Your task to perform on an android device: Go to Maps Image 0: 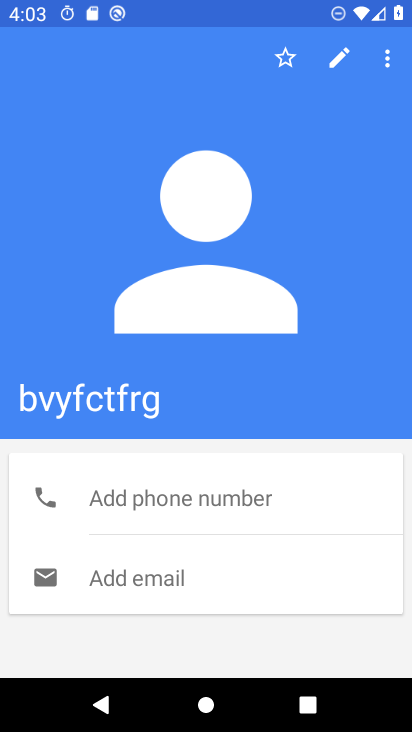
Step 0: press home button
Your task to perform on an android device: Go to Maps Image 1: 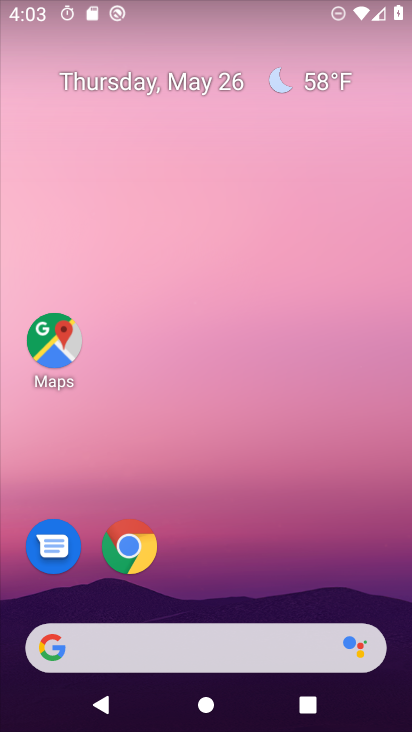
Step 1: click (58, 333)
Your task to perform on an android device: Go to Maps Image 2: 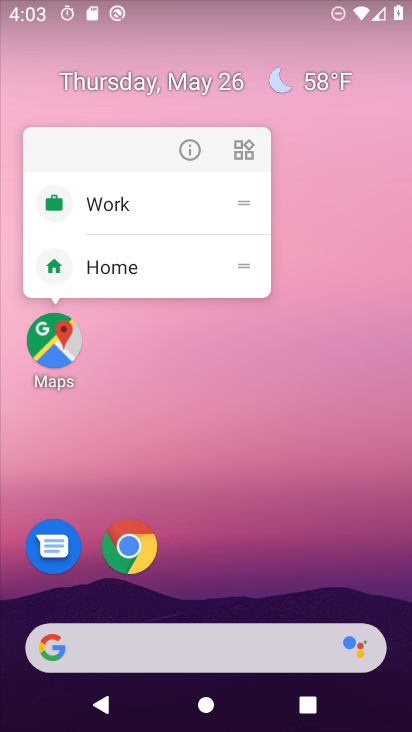
Step 2: click (57, 336)
Your task to perform on an android device: Go to Maps Image 3: 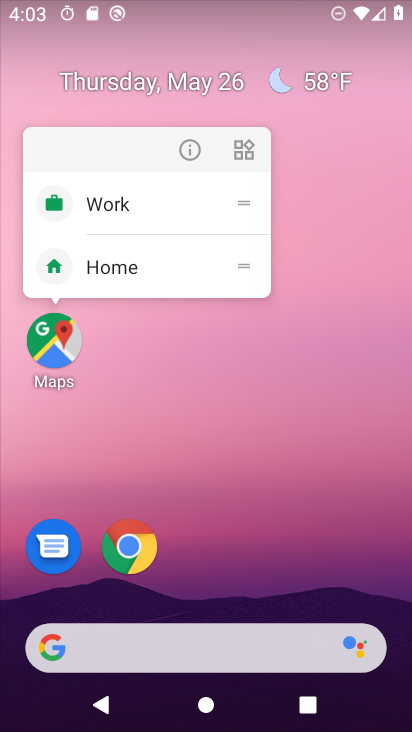
Step 3: click (50, 332)
Your task to perform on an android device: Go to Maps Image 4: 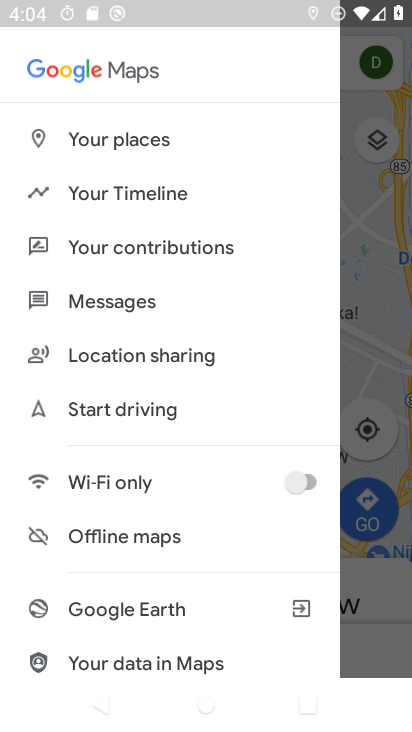
Step 4: click (369, 343)
Your task to perform on an android device: Go to Maps Image 5: 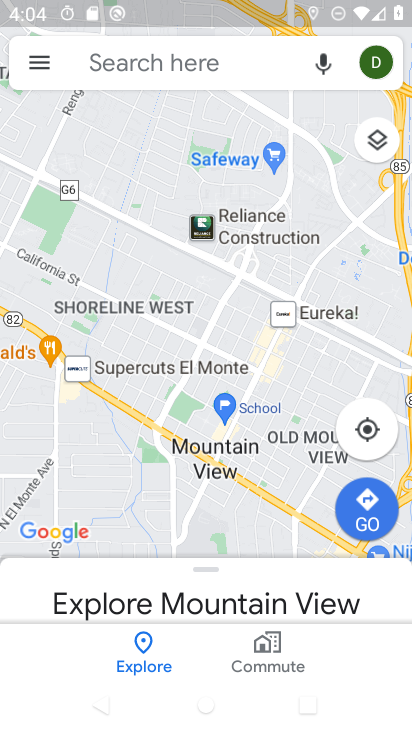
Step 5: task complete